Your task to perform on an android device: turn off smart reply in the gmail app Image 0: 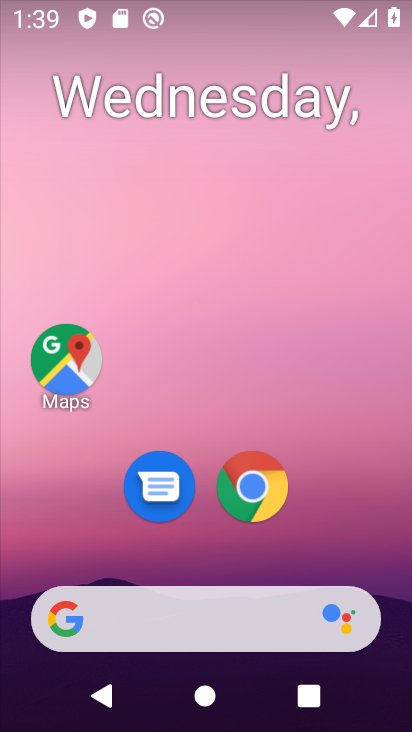
Step 0: drag from (163, 678) to (253, 92)
Your task to perform on an android device: turn off smart reply in the gmail app Image 1: 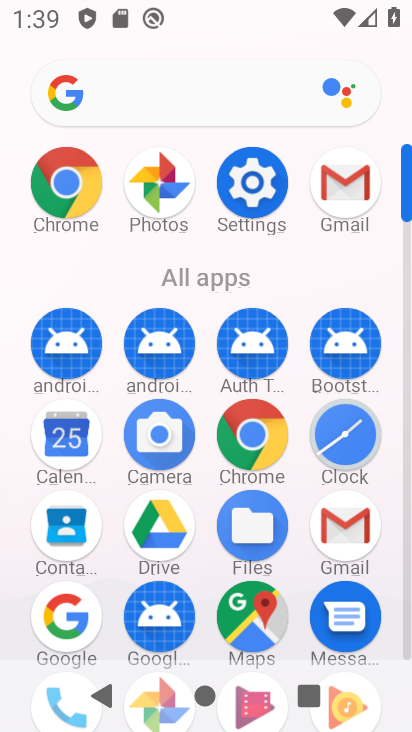
Step 1: click (350, 537)
Your task to perform on an android device: turn off smart reply in the gmail app Image 2: 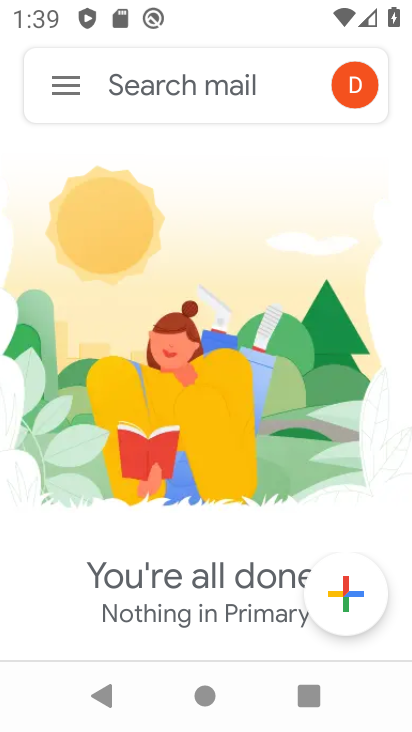
Step 2: click (61, 85)
Your task to perform on an android device: turn off smart reply in the gmail app Image 3: 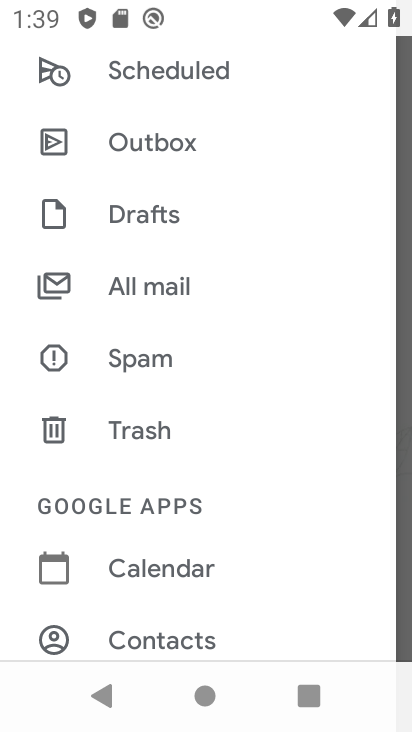
Step 3: drag from (270, 615) to (355, 140)
Your task to perform on an android device: turn off smart reply in the gmail app Image 4: 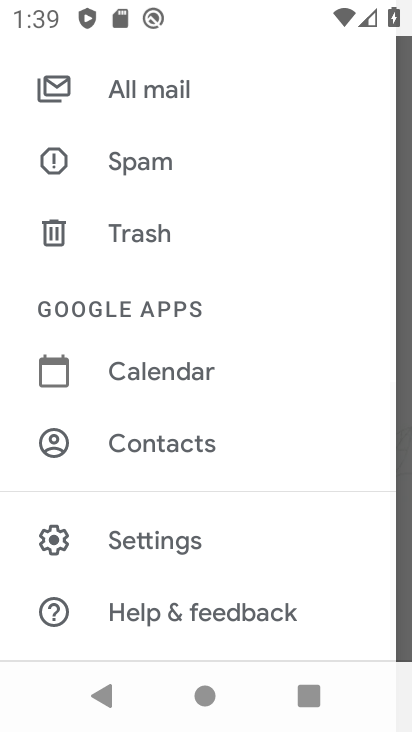
Step 4: click (192, 540)
Your task to perform on an android device: turn off smart reply in the gmail app Image 5: 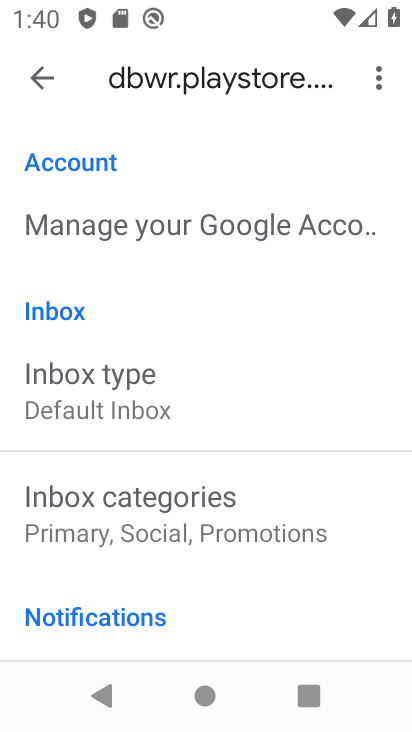
Step 5: drag from (285, 545) to (320, 90)
Your task to perform on an android device: turn off smart reply in the gmail app Image 6: 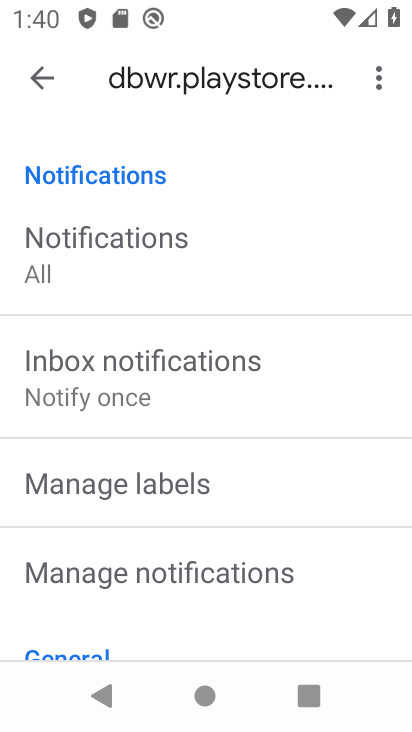
Step 6: drag from (340, 560) to (376, 76)
Your task to perform on an android device: turn off smart reply in the gmail app Image 7: 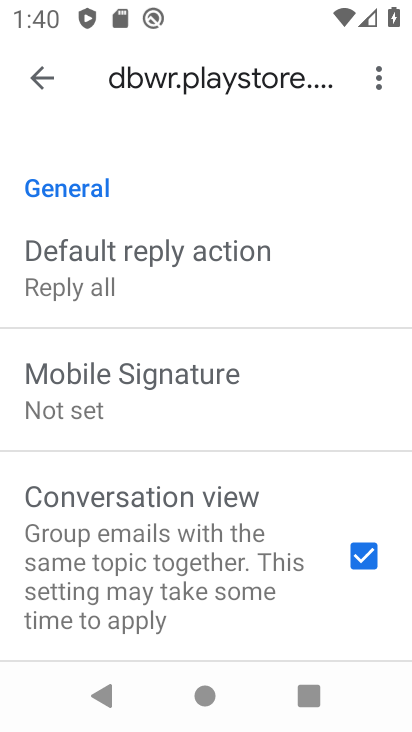
Step 7: drag from (330, 582) to (313, 112)
Your task to perform on an android device: turn off smart reply in the gmail app Image 8: 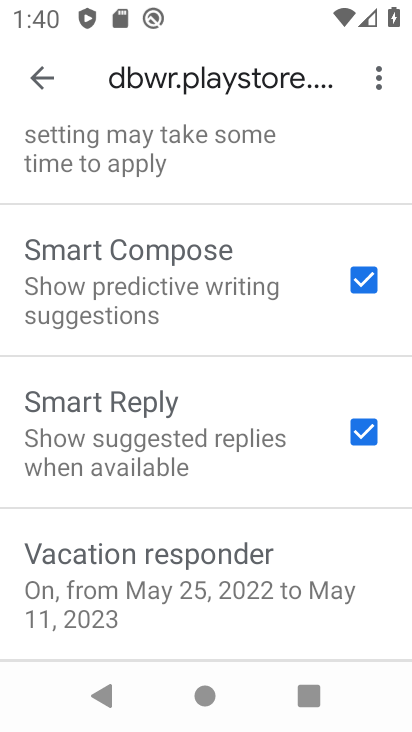
Step 8: click (360, 425)
Your task to perform on an android device: turn off smart reply in the gmail app Image 9: 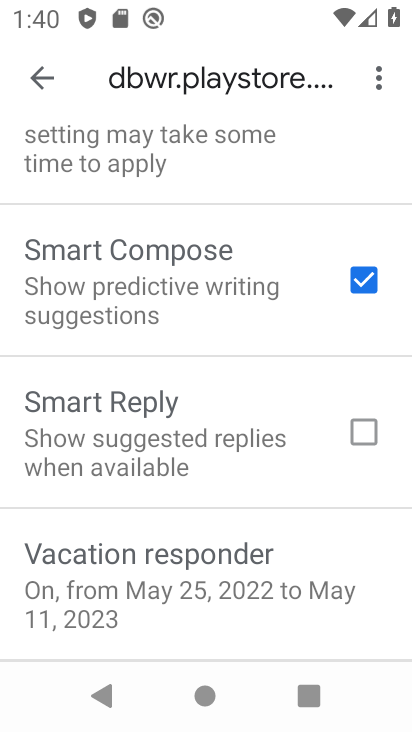
Step 9: task complete